Your task to perform on an android device: What is the recent news? Image 0: 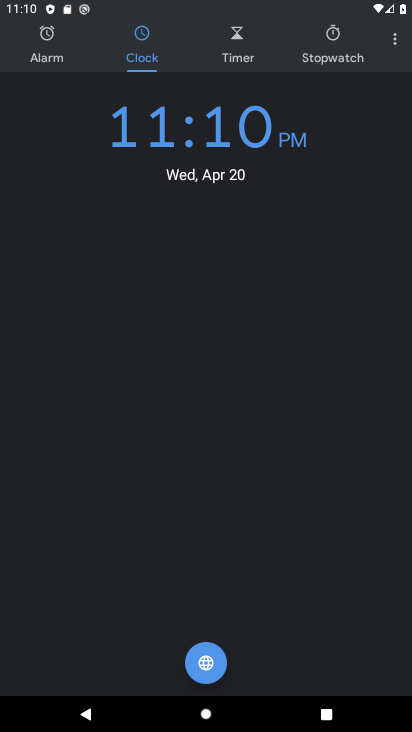
Step 0: press home button
Your task to perform on an android device: What is the recent news? Image 1: 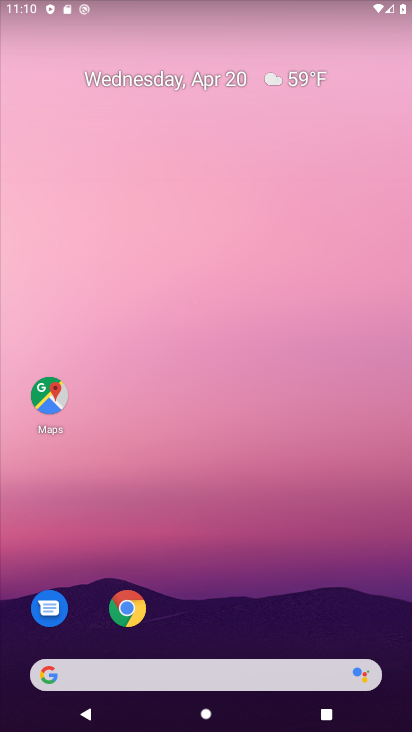
Step 1: drag from (216, 527) to (232, 10)
Your task to perform on an android device: What is the recent news? Image 2: 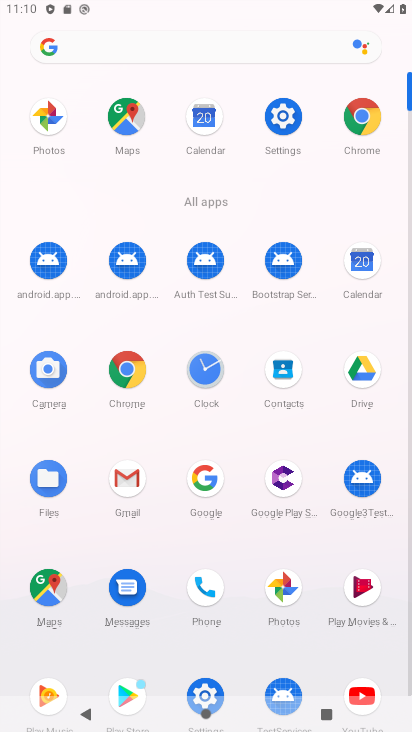
Step 2: drag from (171, 617) to (201, 653)
Your task to perform on an android device: What is the recent news? Image 3: 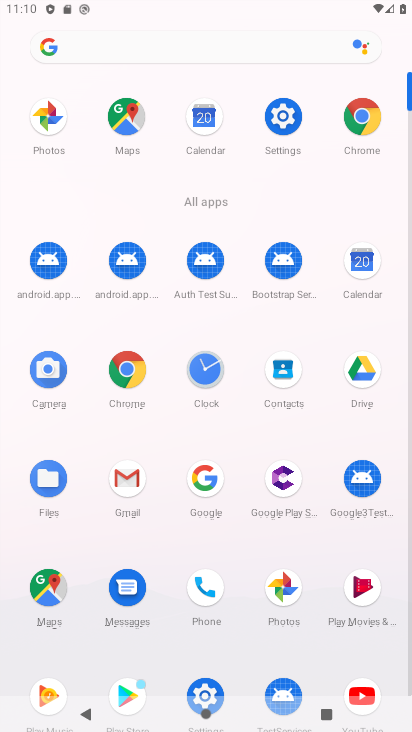
Step 3: click (206, 478)
Your task to perform on an android device: What is the recent news? Image 4: 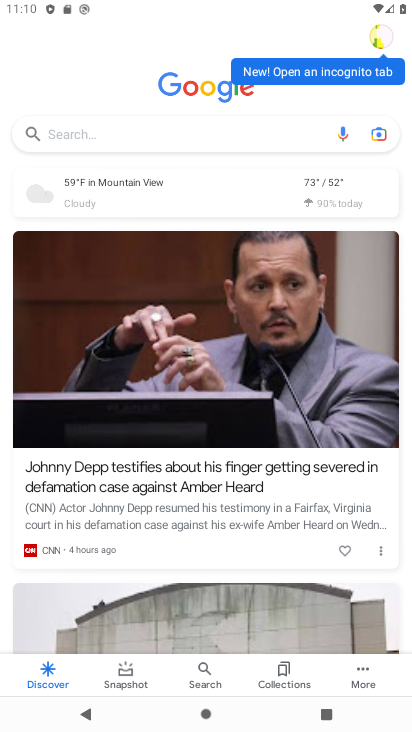
Step 4: click (146, 141)
Your task to perform on an android device: What is the recent news? Image 5: 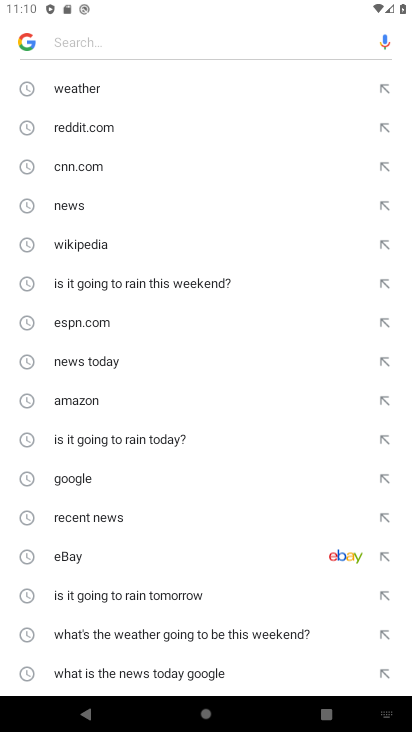
Step 5: click (108, 517)
Your task to perform on an android device: What is the recent news? Image 6: 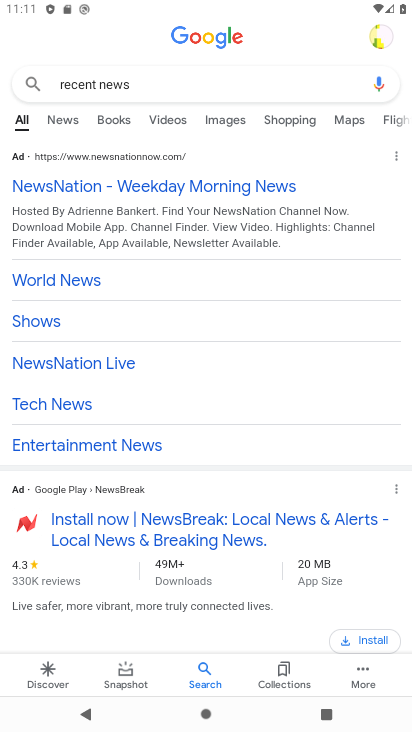
Step 6: task complete